Your task to perform on an android device: Show me productivity apps on the Play Store Image 0: 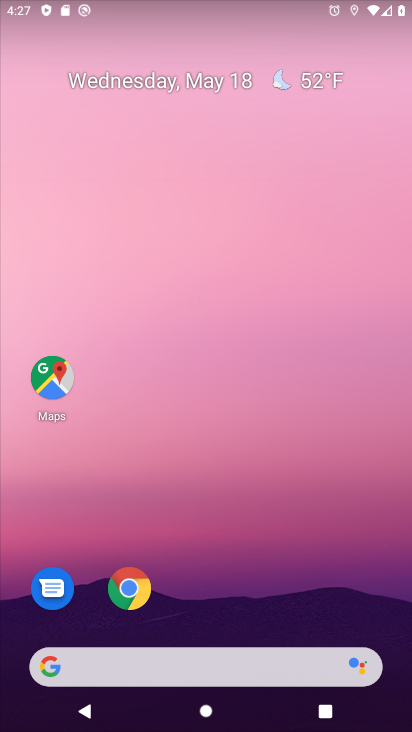
Step 0: drag from (266, 592) to (262, 119)
Your task to perform on an android device: Show me productivity apps on the Play Store Image 1: 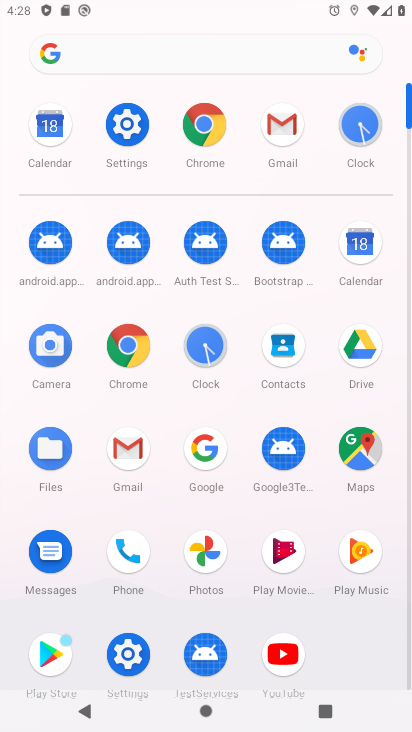
Step 1: click (56, 654)
Your task to perform on an android device: Show me productivity apps on the Play Store Image 2: 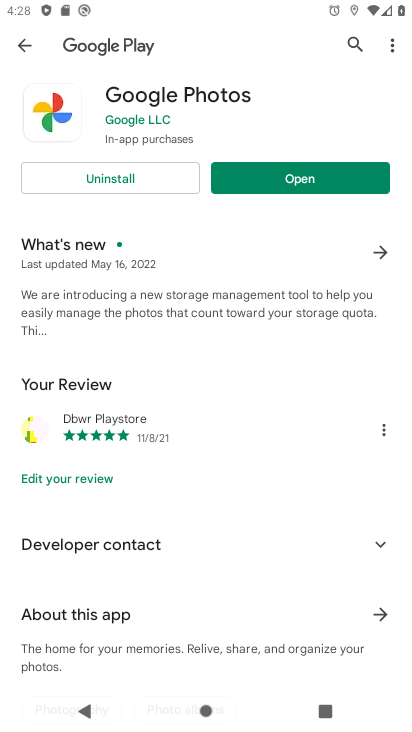
Step 2: click (22, 42)
Your task to perform on an android device: Show me productivity apps on the Play Store Image 3: 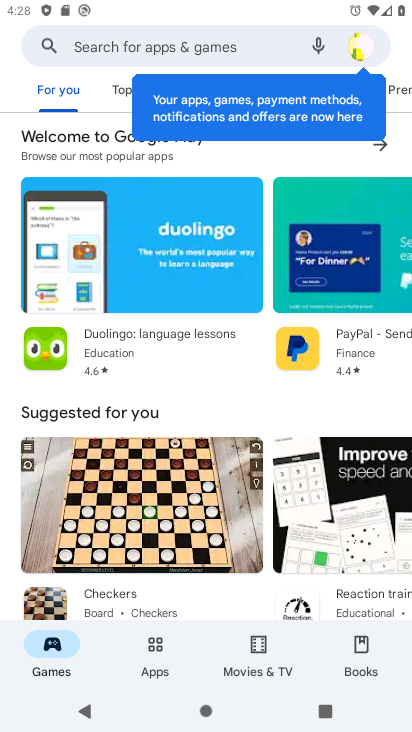
Step 3: click (152, 654)
Your task to perform on an android device: Show me productivity apps on the Play Store Image 4: 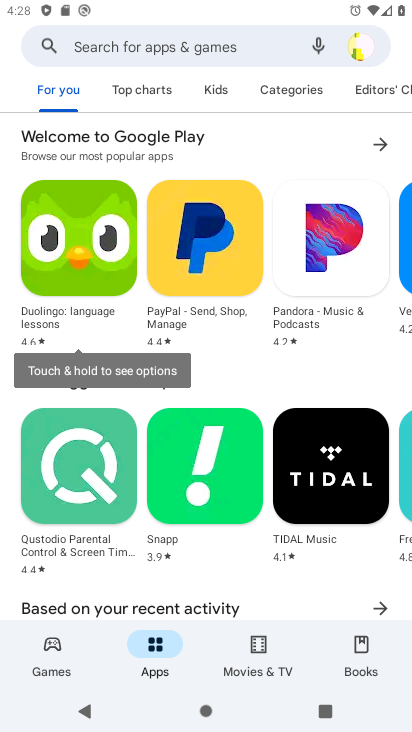
Step 4: task complete